Your task to perform on an android device: change your default location settings in chrome Image 0: 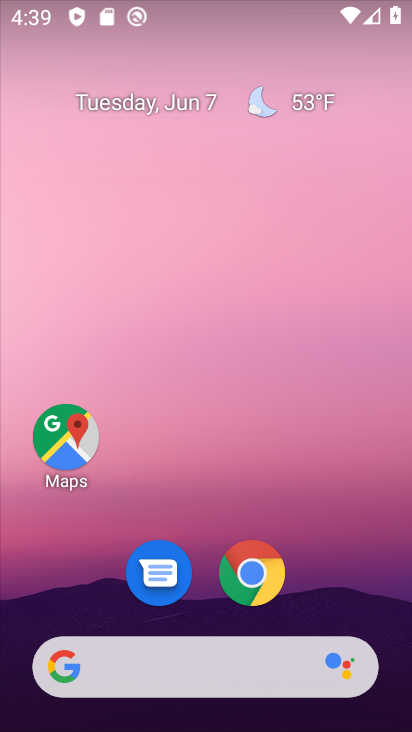
Step 0: drag from (200, 598) to (194, 267)
Your task to perform on an android device: change your default location settings in chrome Image 1: 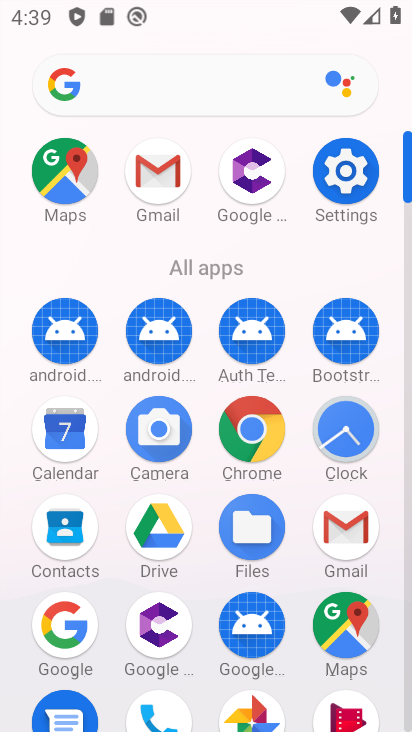
Step 1: click (245, 432)
Your task to perform on an android device: change your default location settings in chrome Image 2: 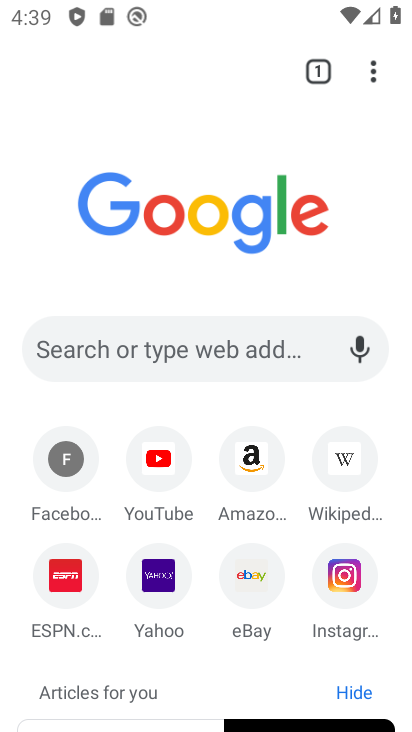
Step 2: click (370, 70)
Your task to perform on an android device: change your default location settings in chrome Image 3: 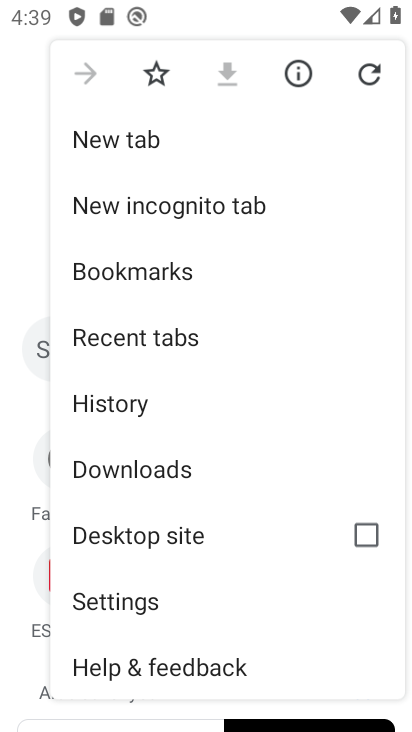
Step 3: click (130, 609)
Your task to perform on an android device: change your default location settings in chrome Image 4: 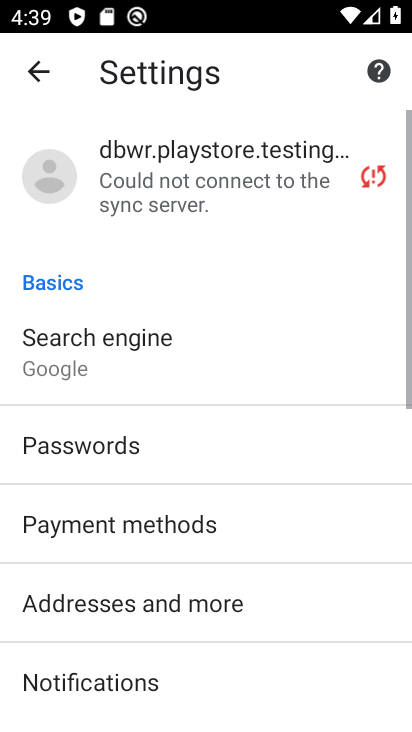
Step 4: drag from (145, 661) to (139, 250)
Your task to perform on an android device: change your default location settings in chrome Image 5: 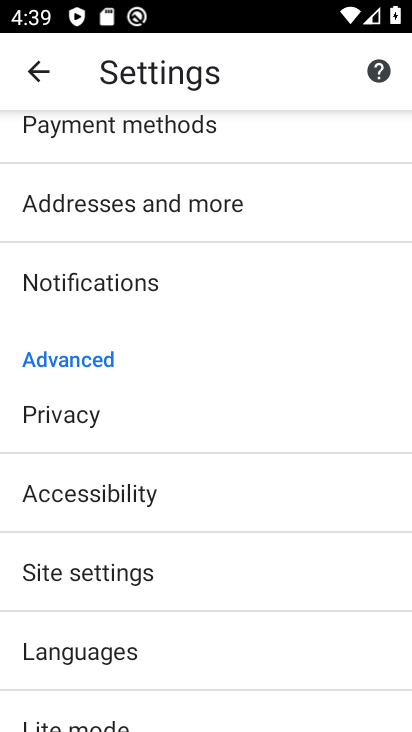
Step 5: click (92, 589)
Your task to perform on an android device: change your default location settings in chrome Image 6: 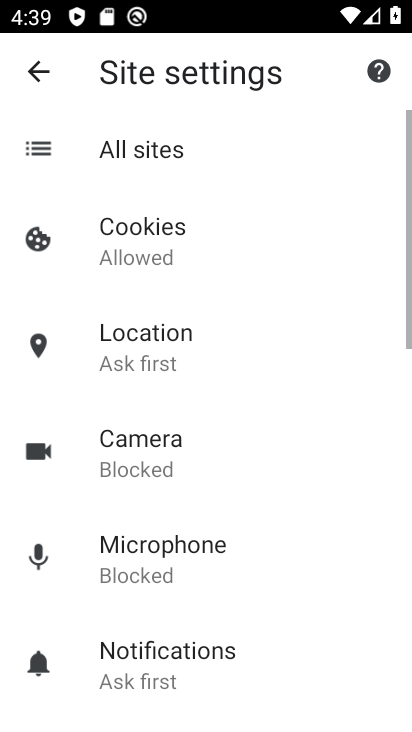
Step 6: drag from (164, 707) to (164, 391)
Your task to perform on an android device: change your default location settings in chrome Image 7: 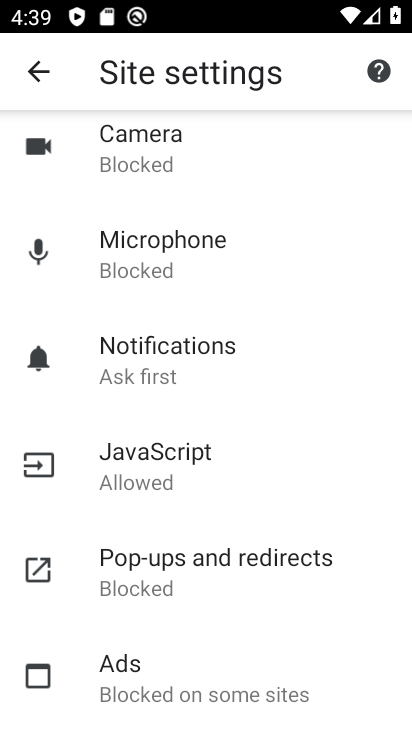
Step 7: drag from (138, 642) to (137, 332)
Your task to perform on an android device: change your default location settings in chrome Image 8: 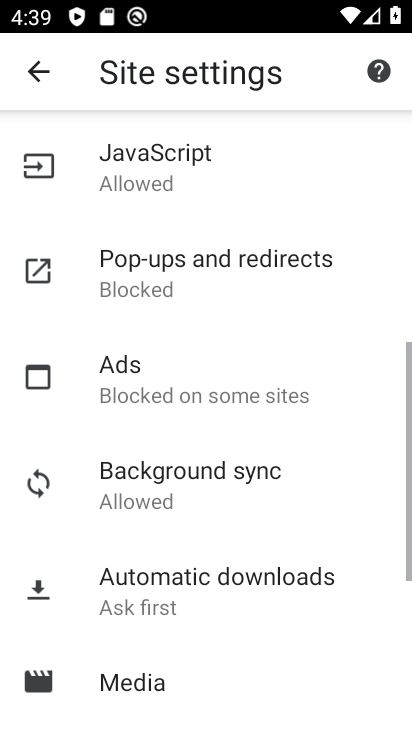
Step 8: drag from (178, 175) to (179, 554)
Your task to perform on an android device: change your default location settings in chrome Image 9: 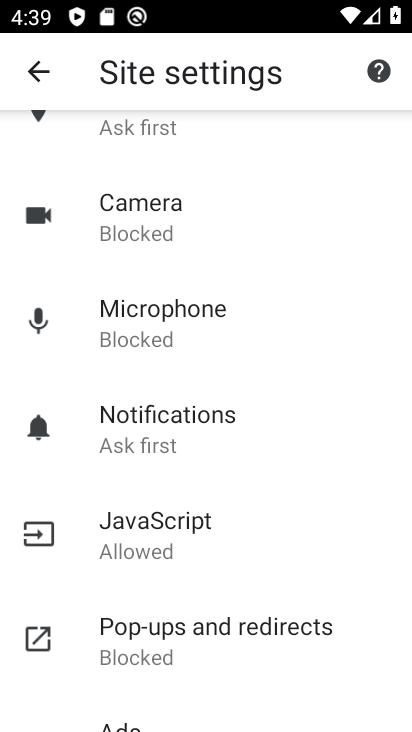
Step 9: drag from (139, 161) to (203, 543)
Your task to perform on an android device: change your default location settings in chrome Image 10: 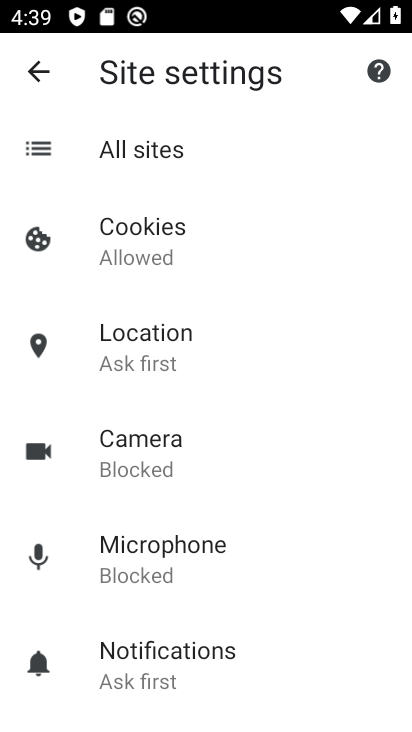
Step 10: click (169, 328)
Your task to perform on an android device: change your default location settings in chrome Image 11: 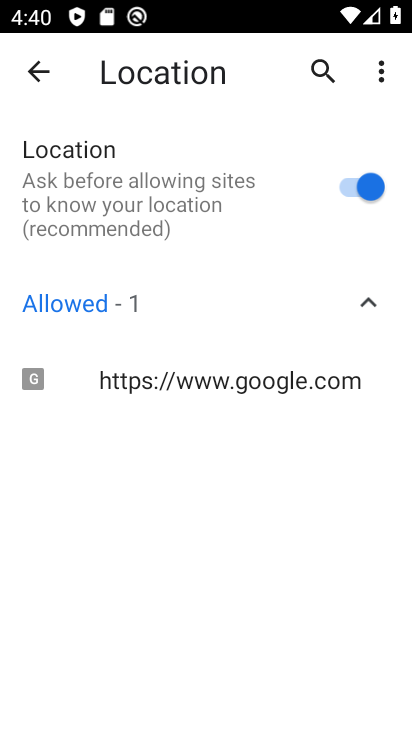
Step 11: click (349, 186)
Your task to perform on an android device: change your default location settings in chrome Image 12: 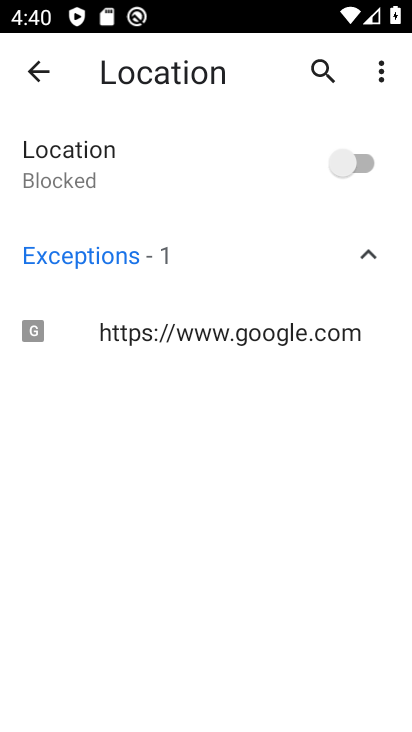
Step 12: task complete